Your task to perform on an android device: See recent photos Image 0: 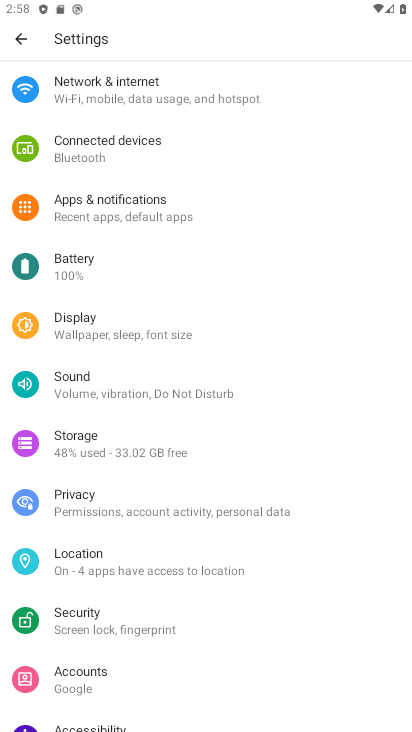
Step 0: press home button
Your task to perform on an android device: See recent photos Image 1: 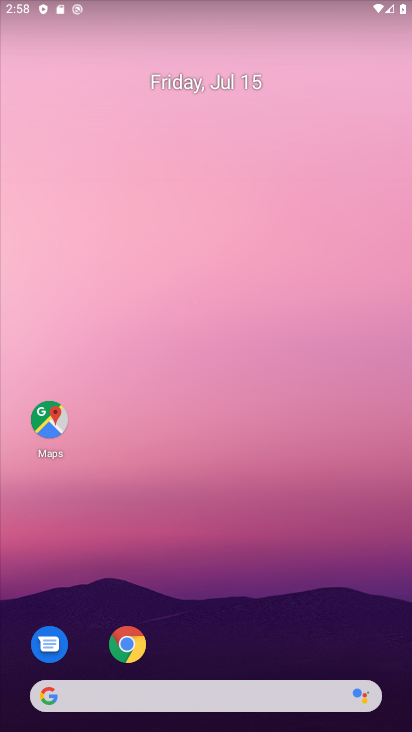
Step 1: drag from (203, 549) to (241, 165)
Your task to perform on an android device: See recent photos Image 2: 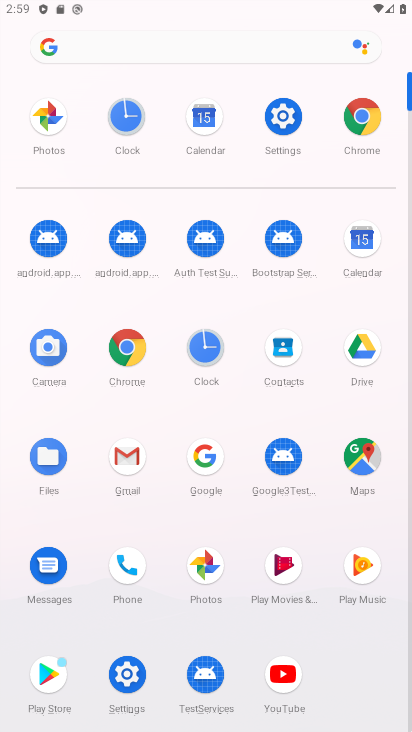
Step 2: click (205, 567)
Your task to perform on an android device: See recent photos Image 3: 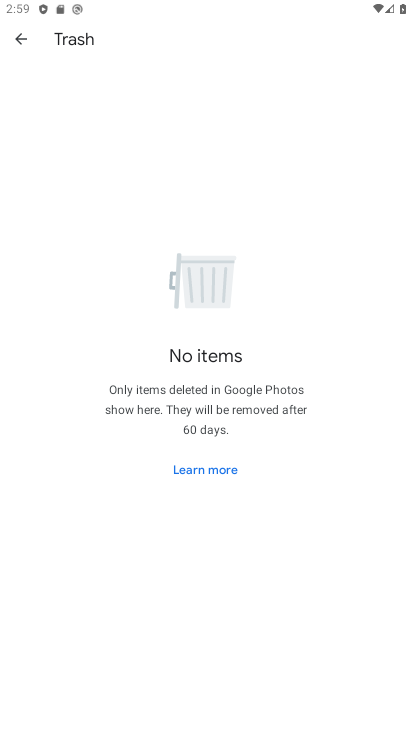
Step 3: task complete